Your task to perform on an android device: What is the news today? Image 0: 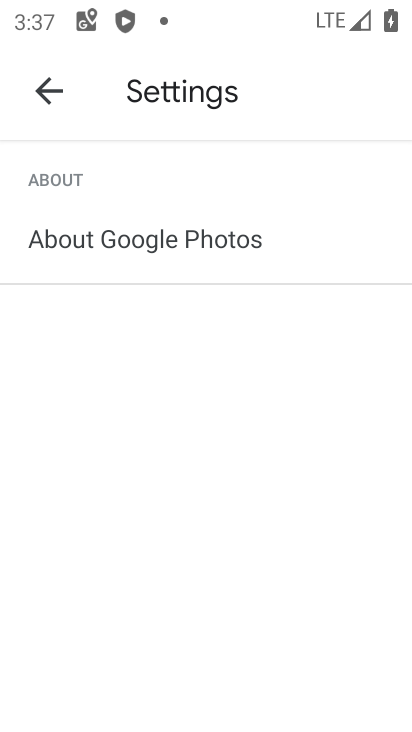
Step 0: press back button
Your task to perform on an android device: What is the news today? Image 1: 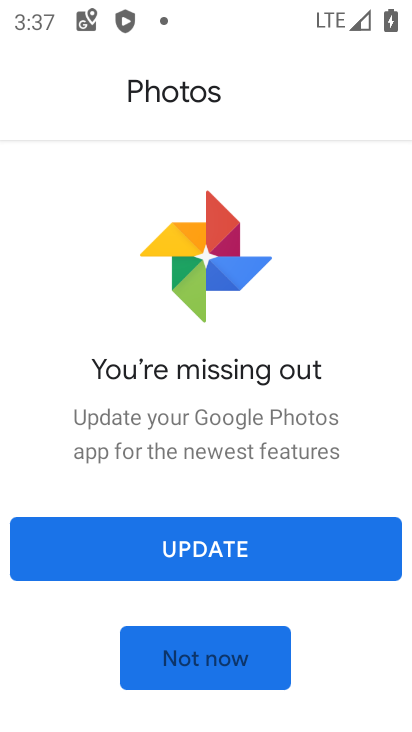
Step 1: press home button
Your task to perform on an android device: What is the news today? Image 2: 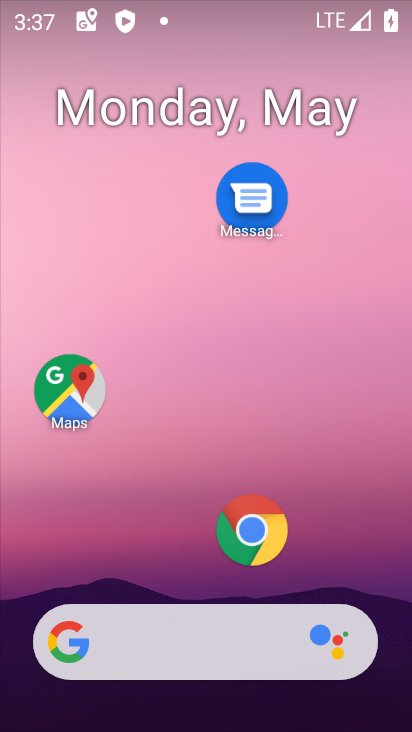
Step 2: click (205, 629)
Your task to perform on an android device: What is the news today? Image 3: 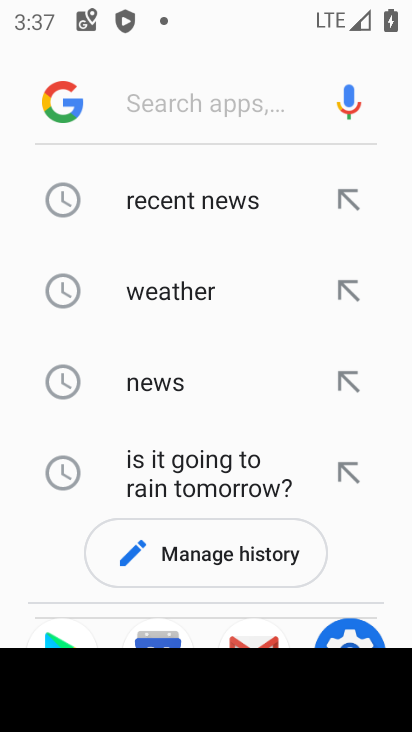
Step 3: type "news today"
Your task to perform on an android device: What is the news today? Image 4: 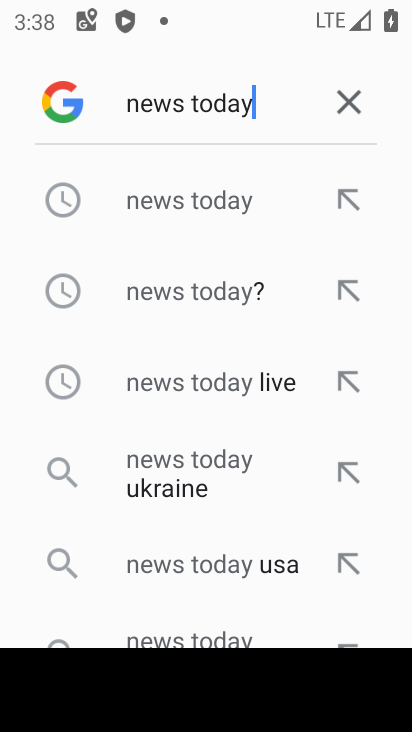
Step 4: click (178, 287)
Your task to perform on an android device: What is the news today? Image 5: 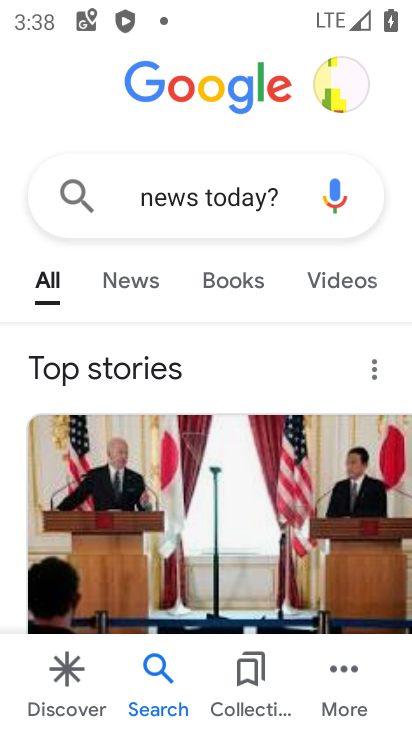
Step 5: task complete